Your task to perform on an android device: set the stopwatch Image 0: 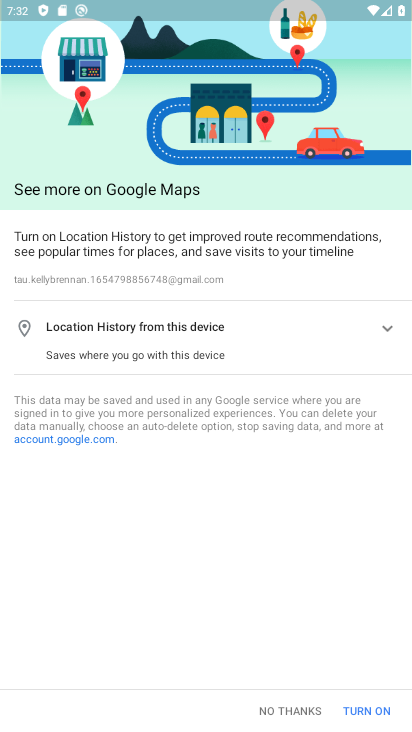
Step 0: press home button
Your task to perform on an android device: set the stopwatch Image 1: 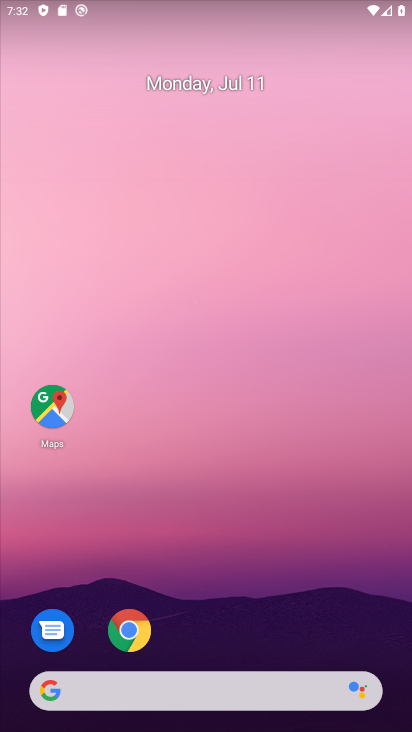
Step 1: drag from (227, 677) to (313, 99)
Your task to perform on an android device: set the stopwatch Image 2: 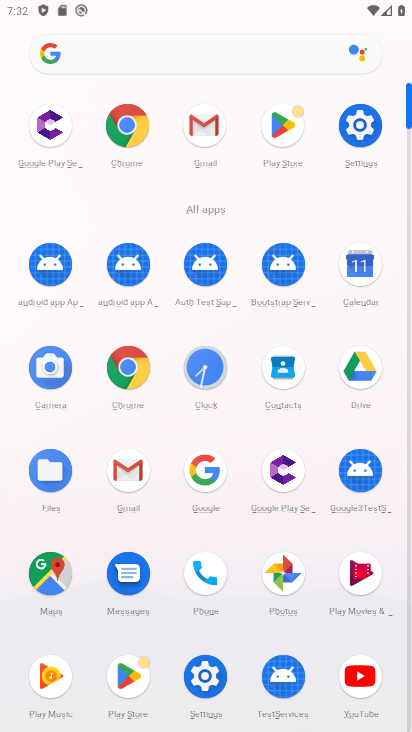
Step 2: click (204, 360)
Your task to perform on an android device: set the stopwatch Image 3: 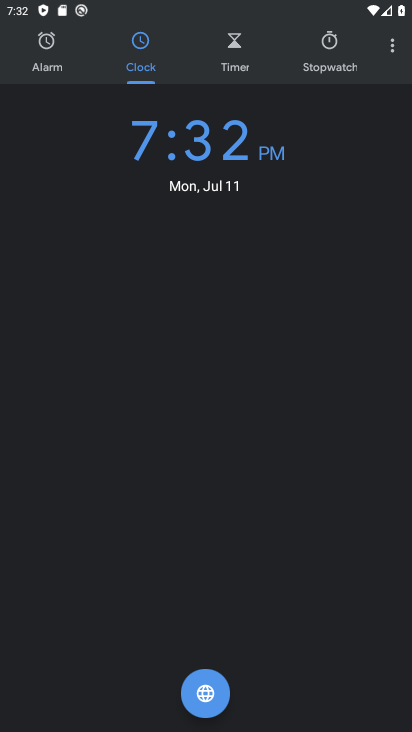
Step 3: click (341, 60)
Your task to perform on an android device: set the stopwatch Image 4: 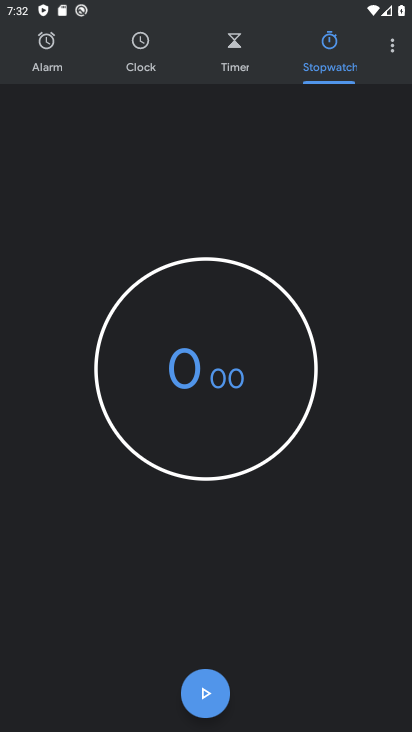
Step 4: click (202, 386)
Your task to perform on an android device: set the stopwatch Image 5: 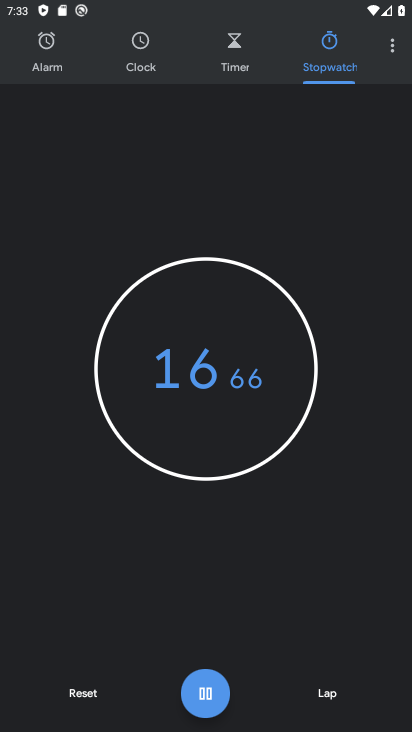
Step 5: task complete